Your task to perform on an android device: Empty the shopping cart on ebay. Search for "razer deathadder" on ebay, select the first entry, and add it to the cart. Image 0: 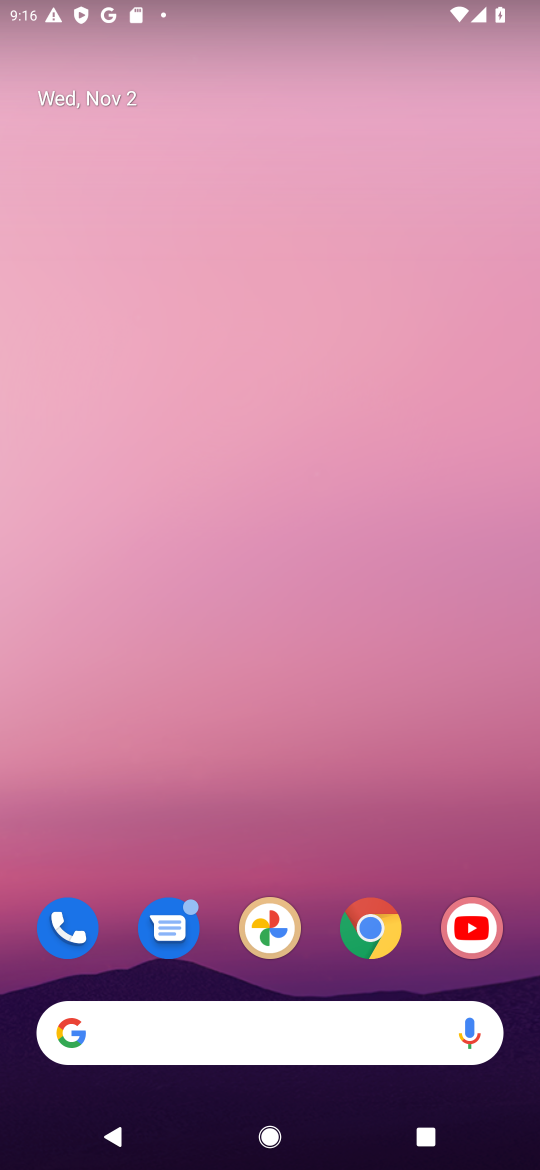
Step 0: click (383, 928)
Your task to perform on an android device: Empty the shopping cart on ebay. Search for "razer deathadder" on ebay, select the first entry, and add it to the cart. Image 1: 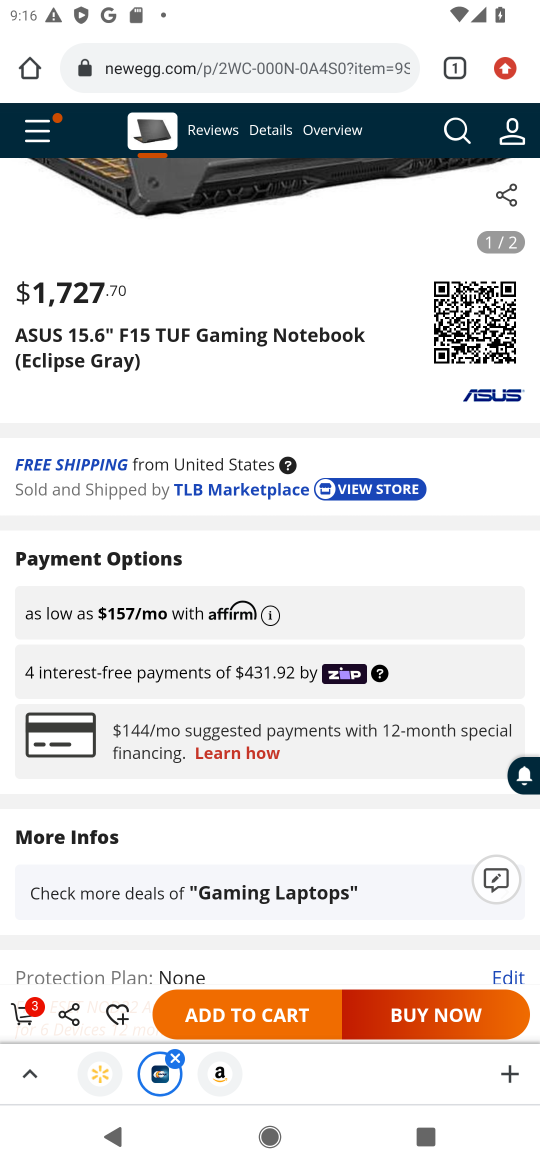
Step 1: click (253, 58)
Your task to perform on an android device: Empty the shopping cart on ebay. Search for "razer deathadder" on ebay, select the first entry, and add it to the cart. Image 2: 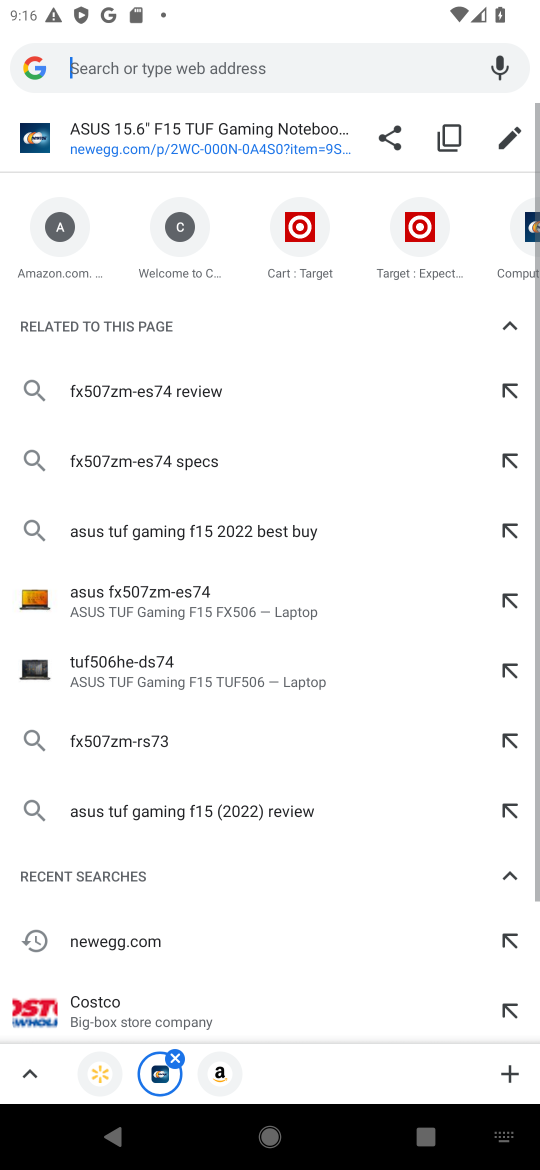
Step 2: type "ebay"
Your task to perform on an android device: Empty the shopping cart on ebay. Search for "razer deathadder" on ebay, select the first entry, and add it to the cart. Image 3: 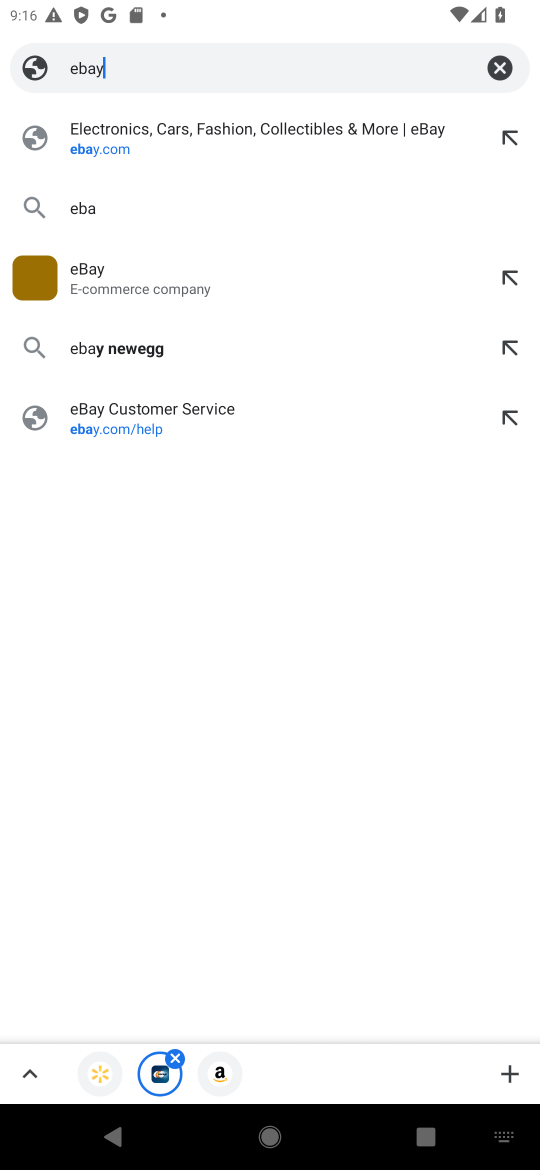
Step 3: type ""
Your task to perform on an android device: Empty the shopping cart on ebay. Search for "razer deathadder" on ebay, select the first entry, and add it to the cart. Image 4: 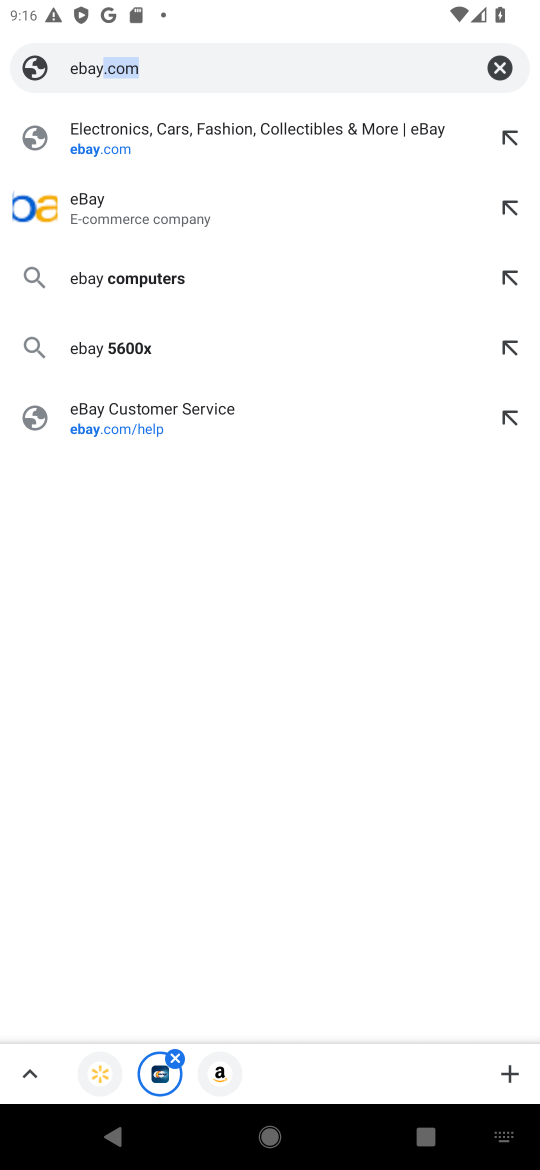
Step 4: click (271, 113)
Your task to perform on an android device: Empty the shopping cart on ebay. Search for "razer deathadder" on ebay, select the first entry, and add it to the cart. Image 5: 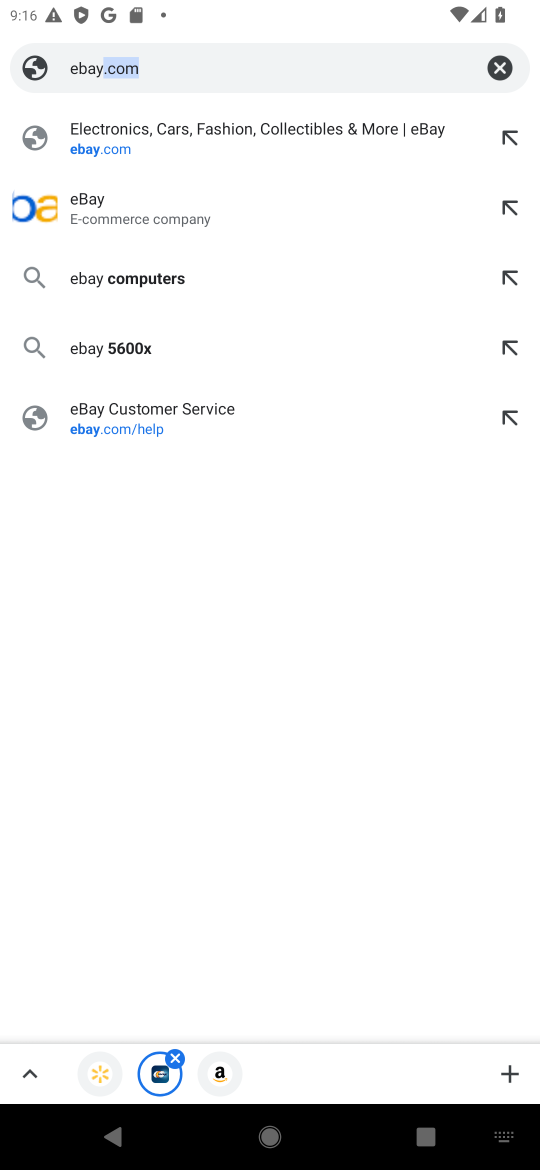
Step 5: click (261, 133)
Your task to perform on an android device: Empty the shopping cart on ebay. Search for "razer deathadder" on ebay, select the first entry, and add it to the cart. Image 6: 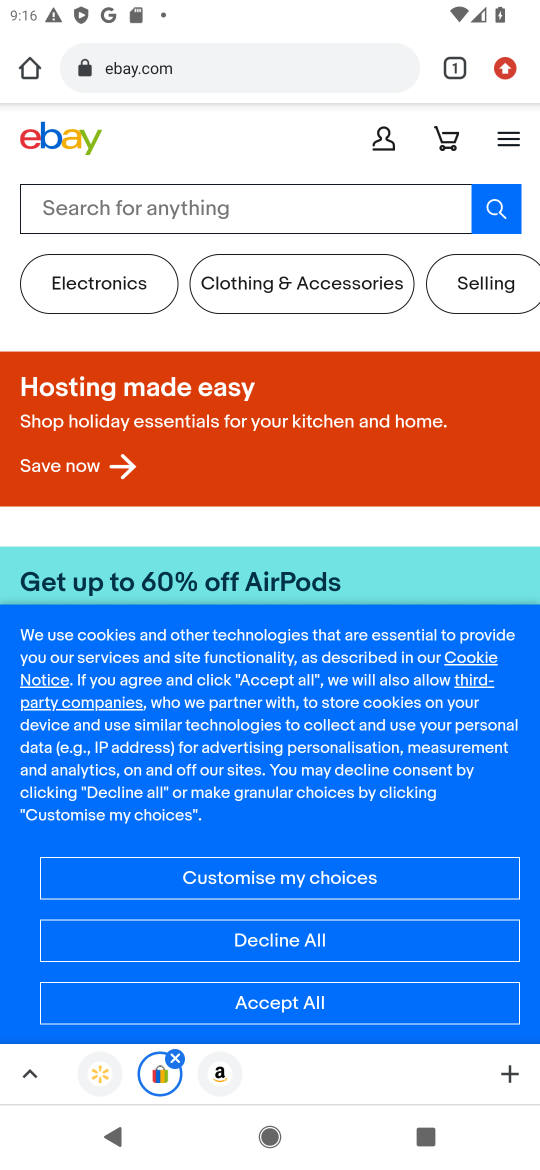
Step 6: click (272, 1009)
Your task to perform on an android device: Empty the shopping cart on ebay. Search for "razer deathadder" on ebay, select the first entry, and add it to the cart. Image 7: 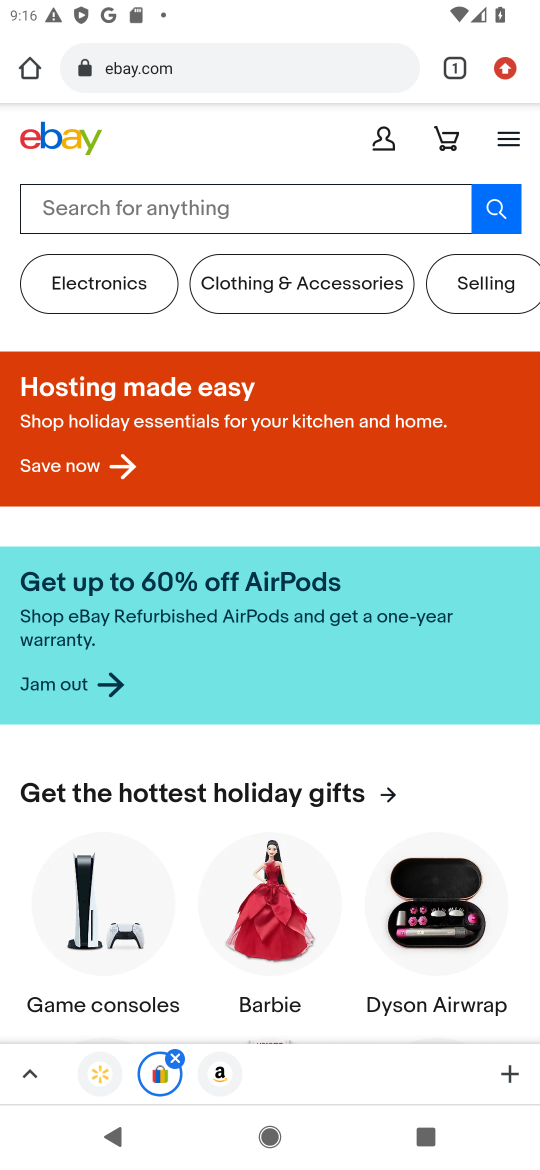
Step 7: click (150, 219)
Your task to perform on an android device: Empty the shopping cart on ebay. Search for "razer deathadder" on ebay, select the first entry, and add it to the cart. Image 8: 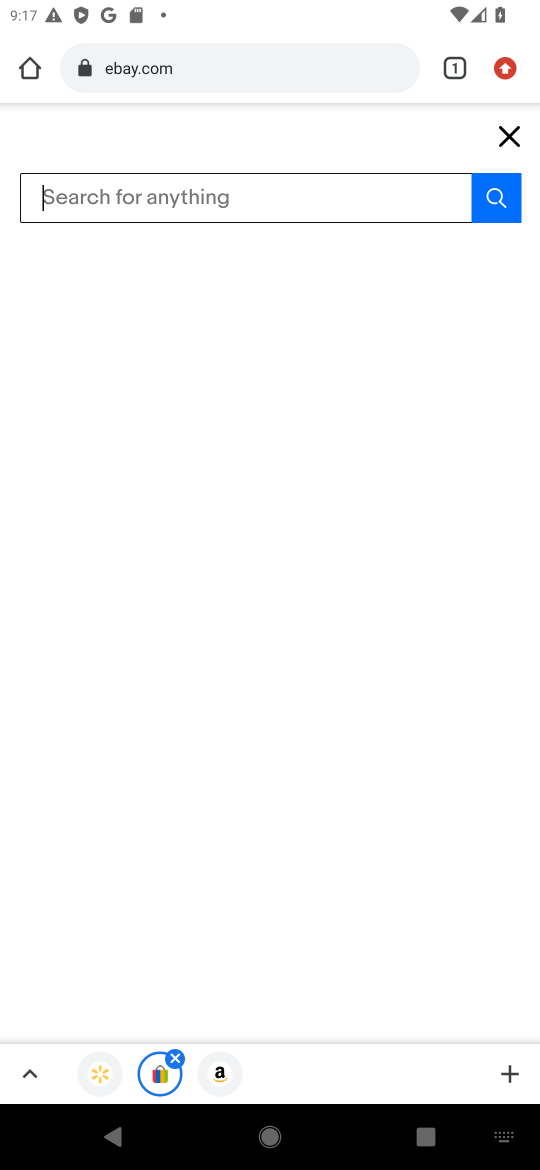
Step 8: type "razer deathadder"
Your task to perform on an android device: Empty the shopping cart on ebay. Search for "razer deathadder" on ebay, select the first entry, and add it to the cart. Image 9: 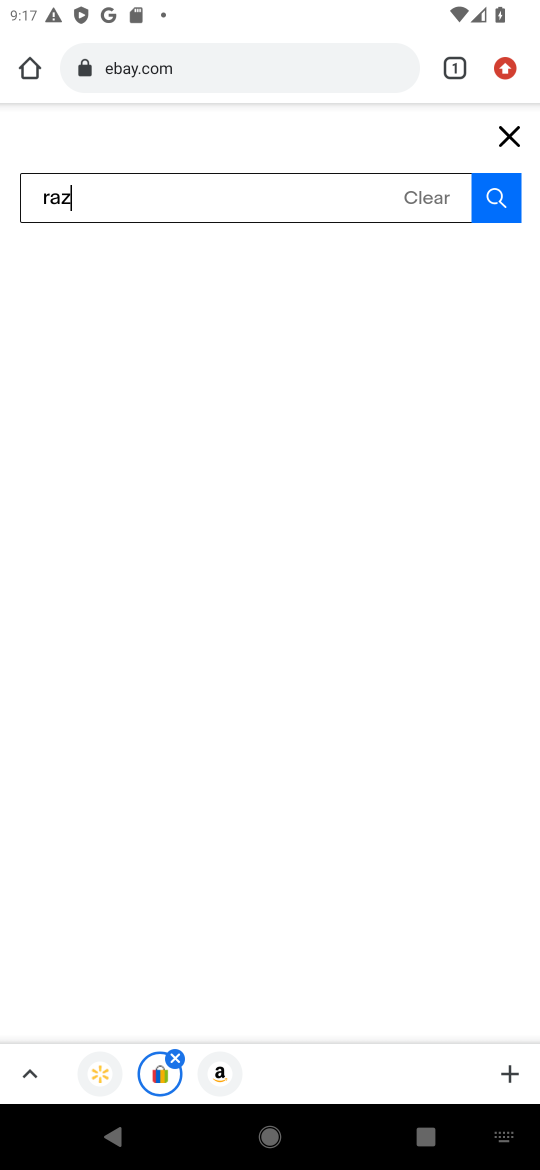
Step 9: type ""
Your task to perform on an android device: Empty the shopping cart on ebay. Search for "razer deathadder" on ebay, select the first entry, and add it to the cart. Image 10: 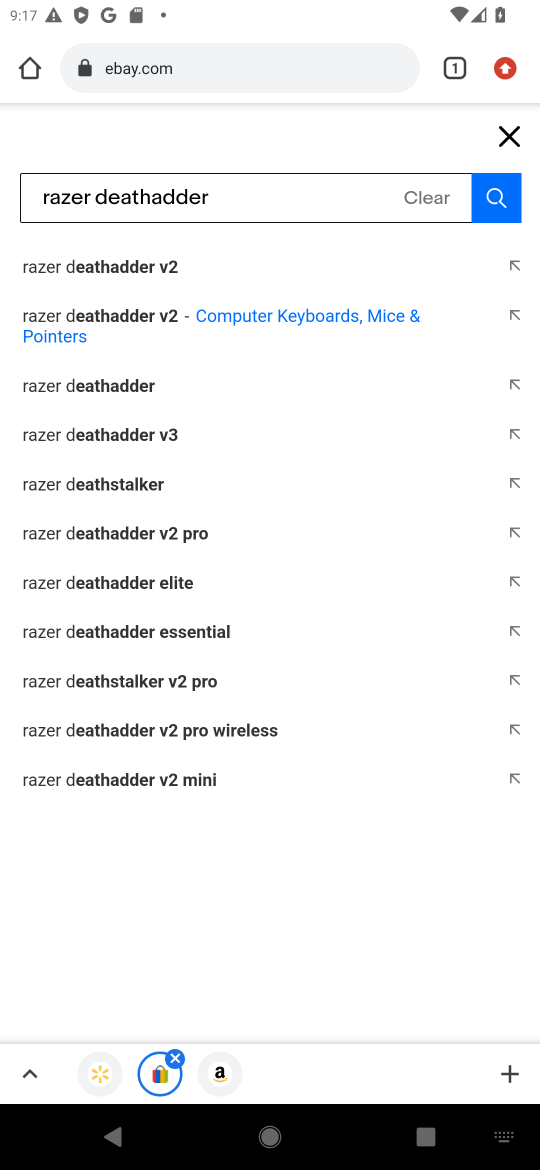
Step 10: click (504, 192)
Your task to perform on an android device: Empty the shopping cart on ebay. Search for "razer deathadder" on ebay, select the first entry, and add it to the cart. Image 11: 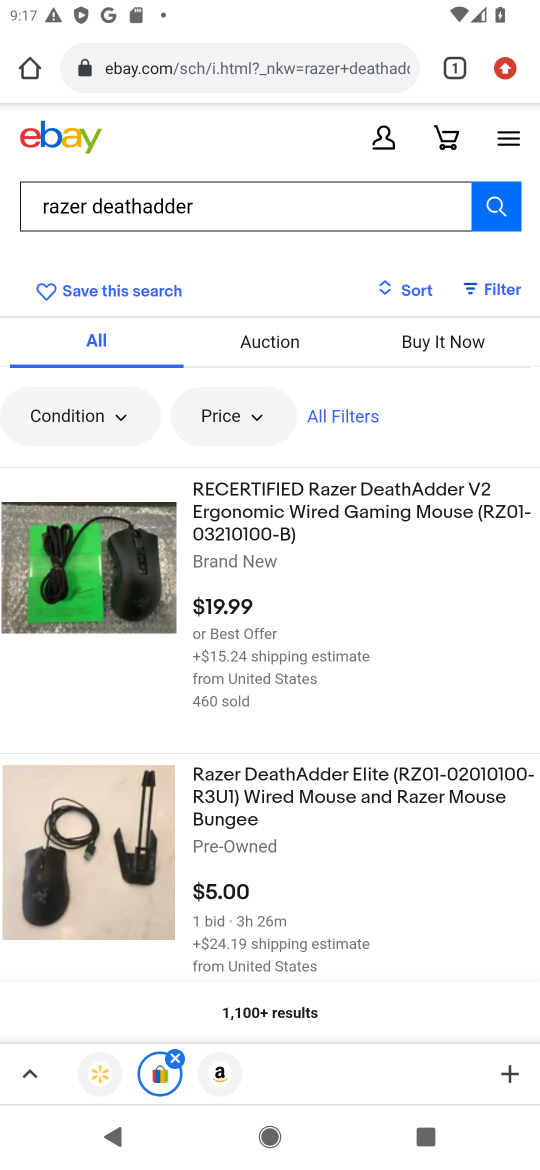
Step 11: click (390, 771)
Your task to perform on an android device: Empty the shopping cart on ebay. Search for "razer deathadder" on ebay, select the first entry, and add it to the cart. Image 12: 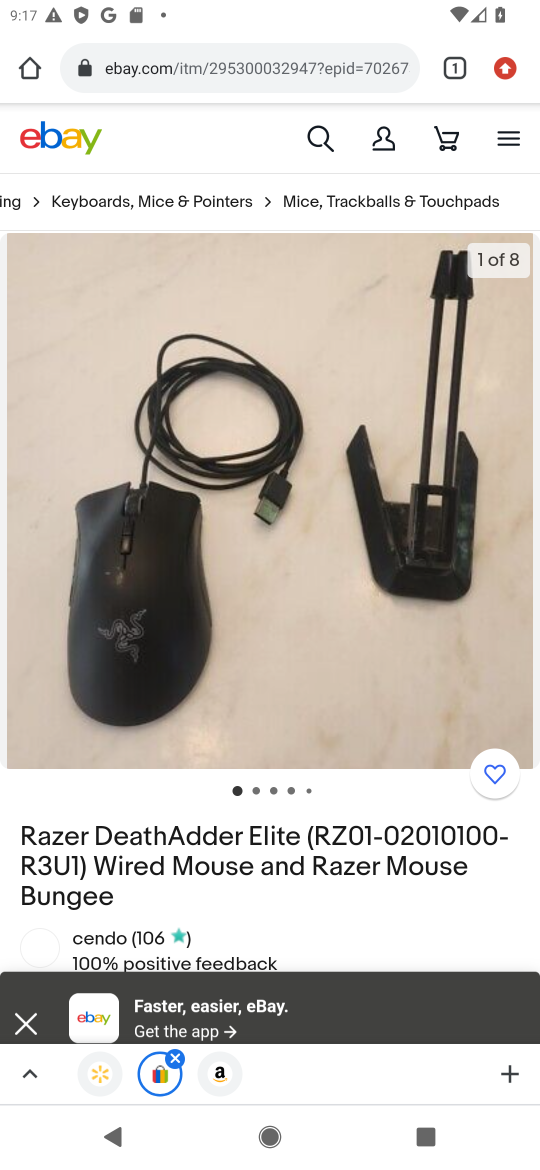
Step 12: drag from (411, 911) to (414, 349)
Your task to perform on an android device: Empty the shopping cart on ebay. Search for "razer deathadder" on ebay, select the first entry, and add it to the cart. Image 13: 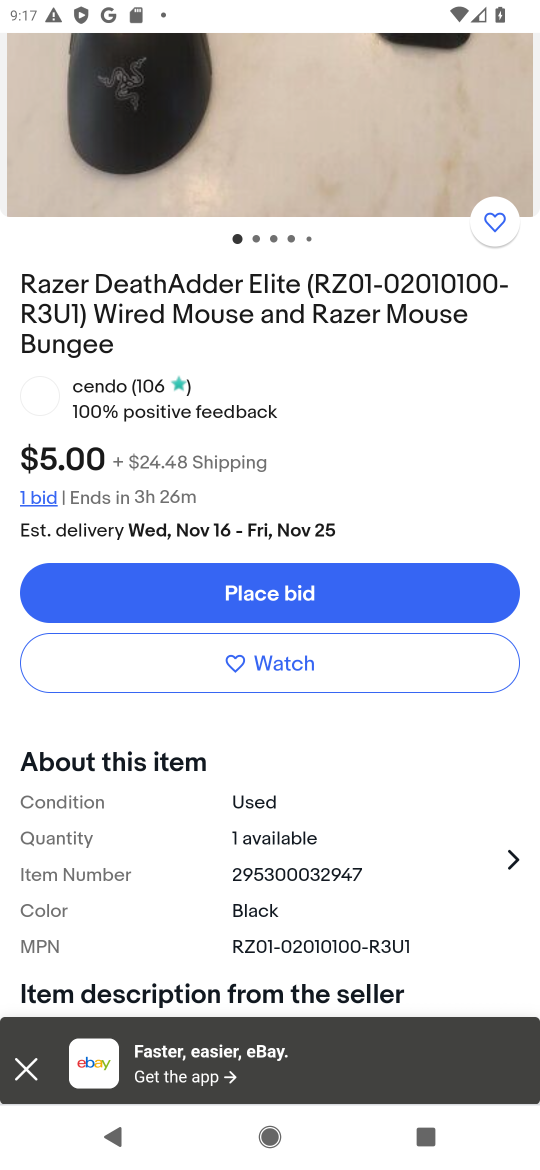
Step 13: click (30, 1081)
Your task to perform on an android device: Empty the shopping cart on ebay. Search for "razer deathadder" on ebay, select the first entry, and add it to the cart. Image 14: 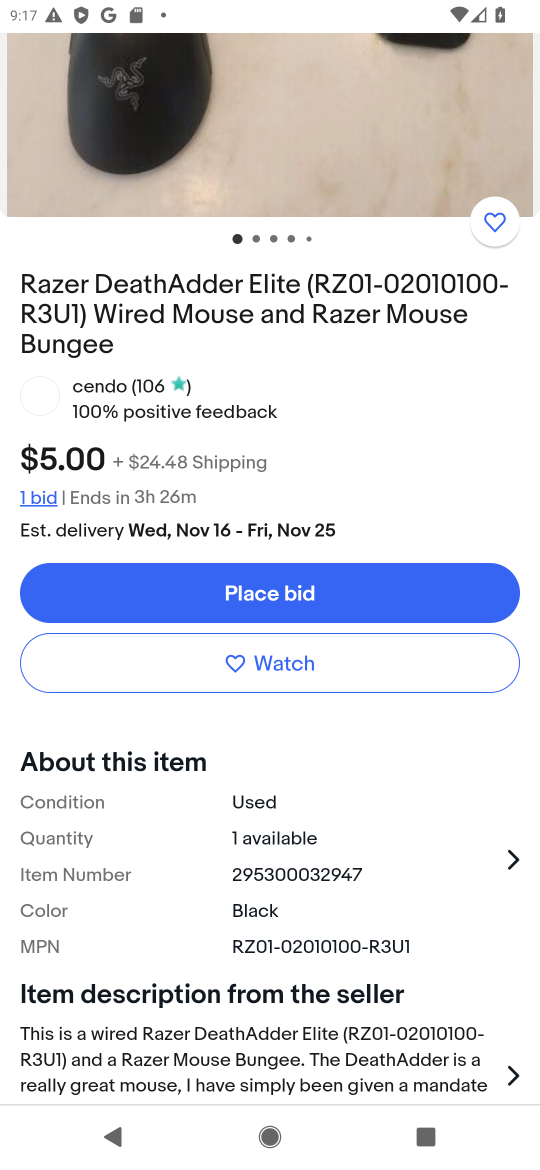
Step 14: drag from (184, 857) to (255, 386)
Your task to perform on an android device: Empty the shopping cart on ebay. Search for "razer deathadder" on ebay, select the first entry, and add it to the cart. Image 15: 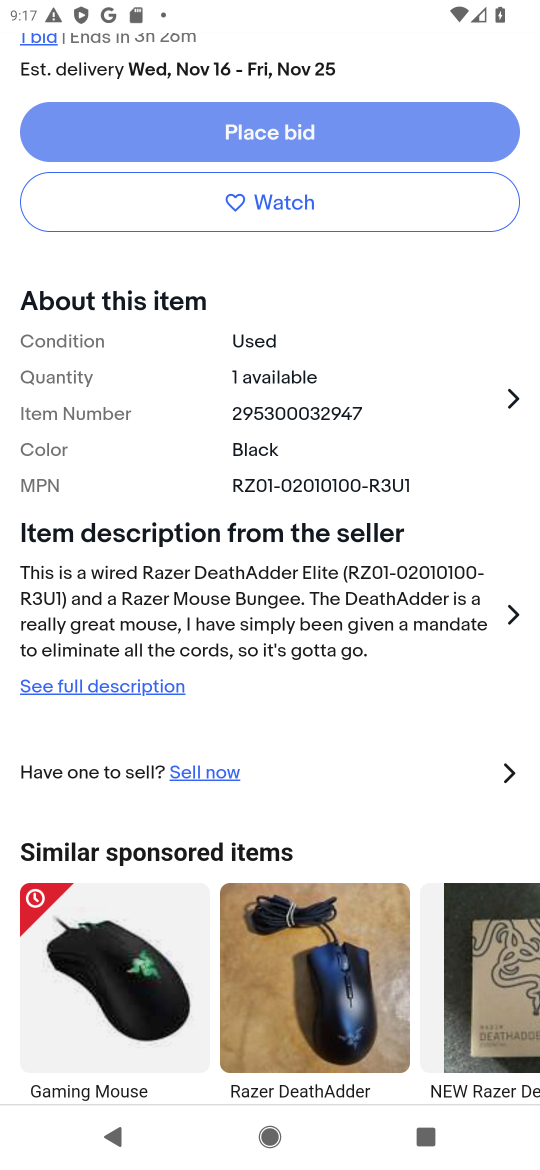
Step 15: press back button
Your task to perform on an android device: Empty the shopping cart on ebay. Search for "razer deathadder" on ebay, select the first entry, and add it to the cart. Image 16: 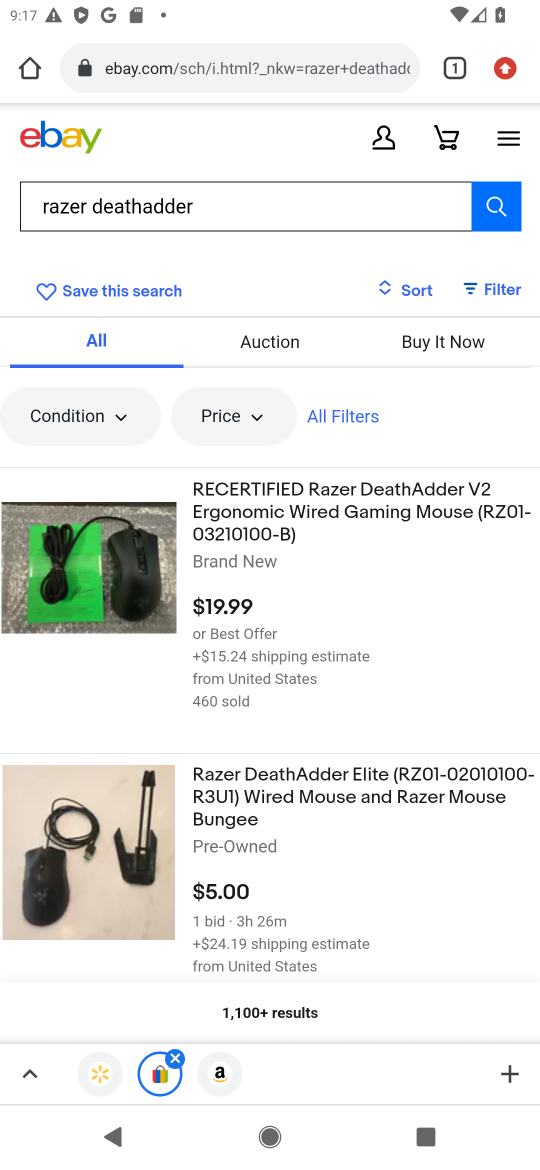
Step 16: click (354, 494)
Your task to perform on an android device: Empty the shopping cart on ebay. Search for "razer deathadder" on ebay, select the first entry, and add it to the cart. Image 17: 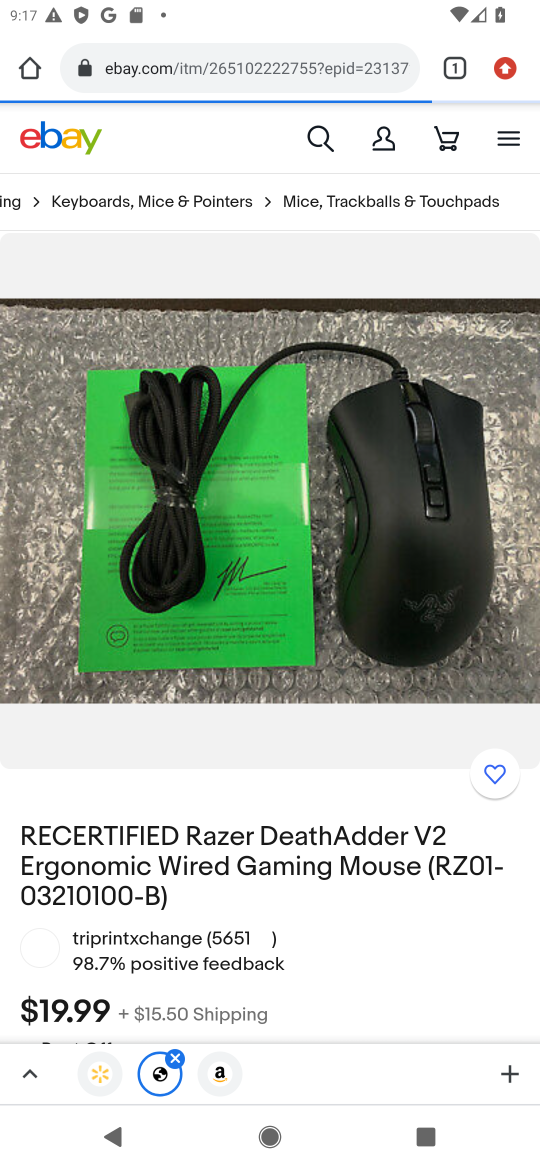
Step 17: drag from (350, 926) to (352, 430)
Your task to perform on an android device: Empty the shopping cart on ebay. Search for "razer deathadder" on ebay, select the first entry, and add it to the cart. Image 18: 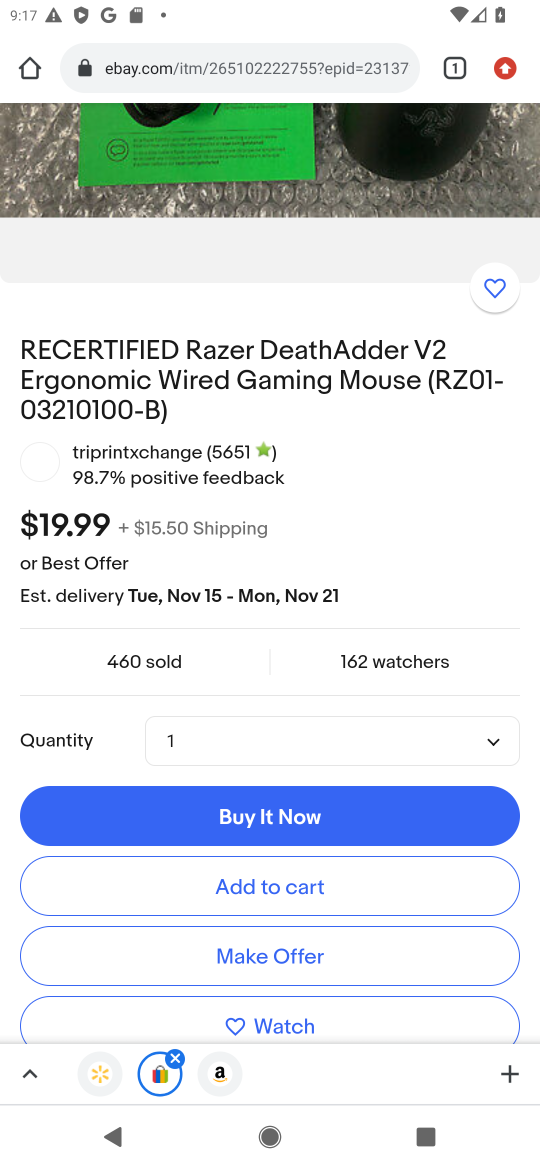
Step 18: click (284, 873)
Your task to perform on an android device: Empty the shopping cart on ebay. Search for "razer deathadder" on ebay, select the first entry, and add it to the cart. Image 19: 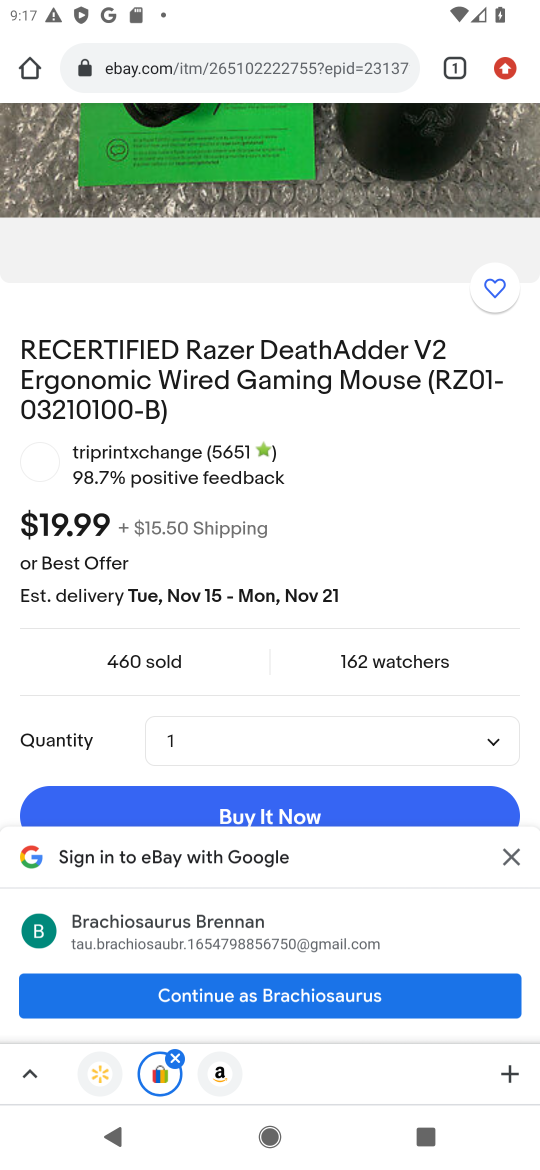
Step 19: click (513, 852)
Your task to perform on an android device: Empty the shopping cart on ebay. Search for "razer deathadder" on ebay, select the first entry, and add it to the cart. Image 20: 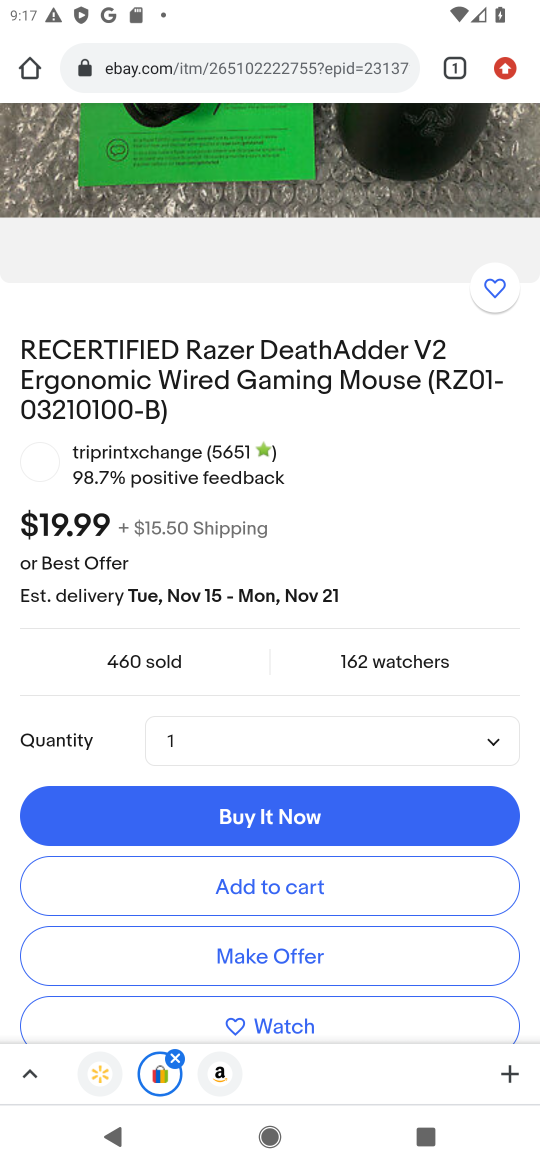
Step 20: click (413, 886)
Your task to perform on an android device: Empty the shopping cart on ebay. Search for "razer deathadder" on ebay, select the first entry, and add it to the cart. Image 21: 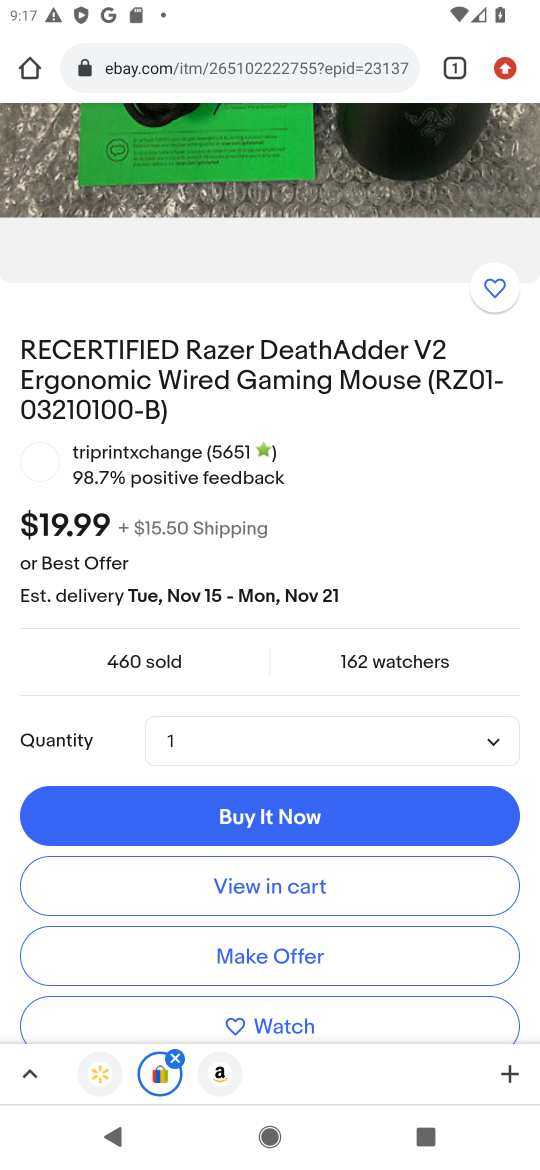
Step 21: click (413, 886)
Your task to perform on an android device: Empty the shopping cart on ebay. Search for "razer deathadder" on ebay, select the first entry, and add it to the cart. Image 22: 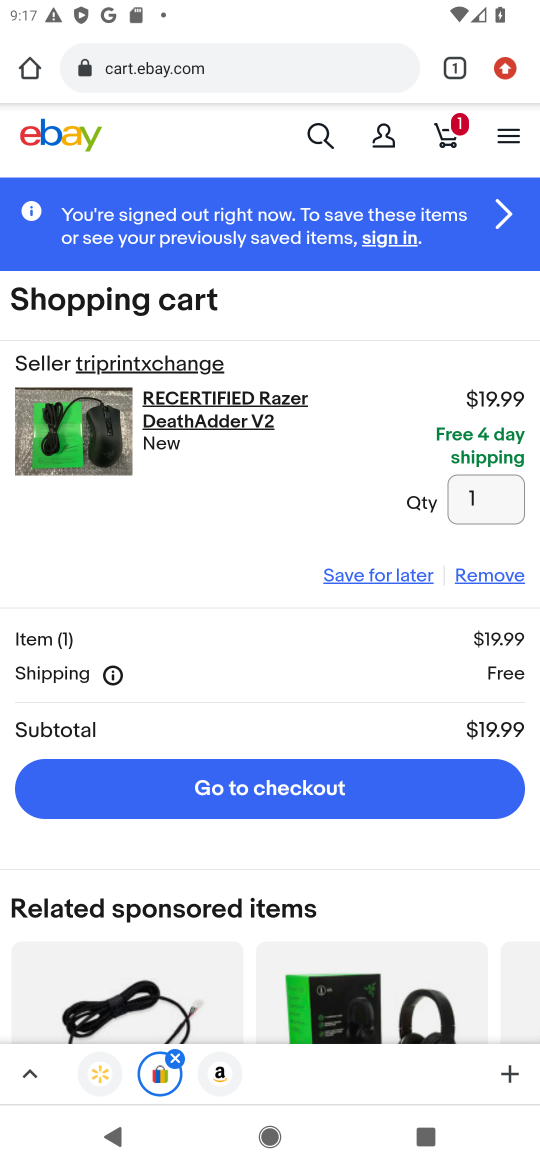
Step 22: task complete